Your task to perform on an android device: create a new album in the google photos Image 0: 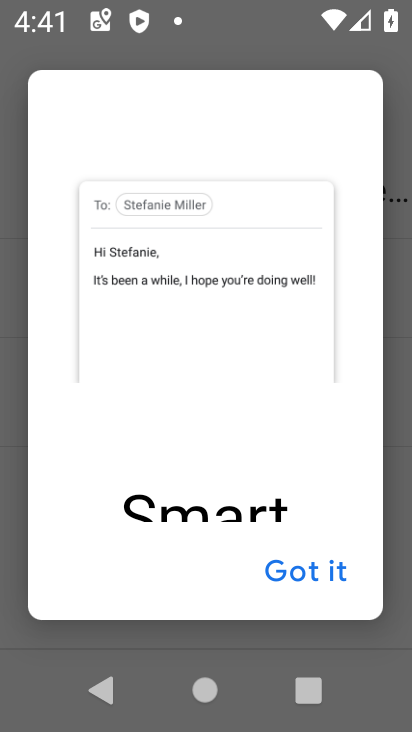
Step 0: press home button
Your task to perform on an android device: create a new album in the google photos Image 1: 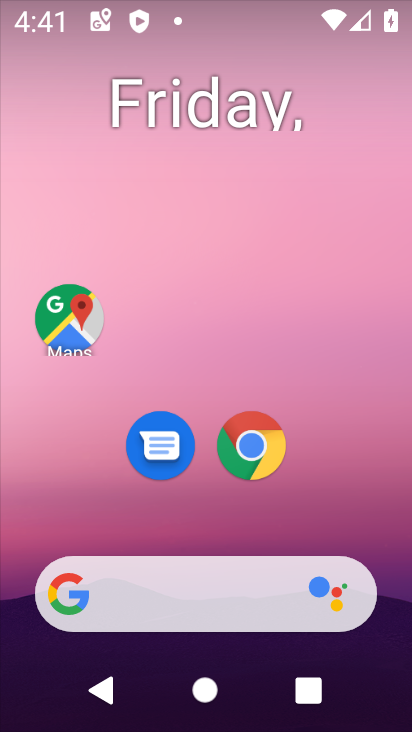
Step 1: drag from (303, 309) to (301, 120)
Your task to perform on an android device: create a new album in the google photos Image 2: 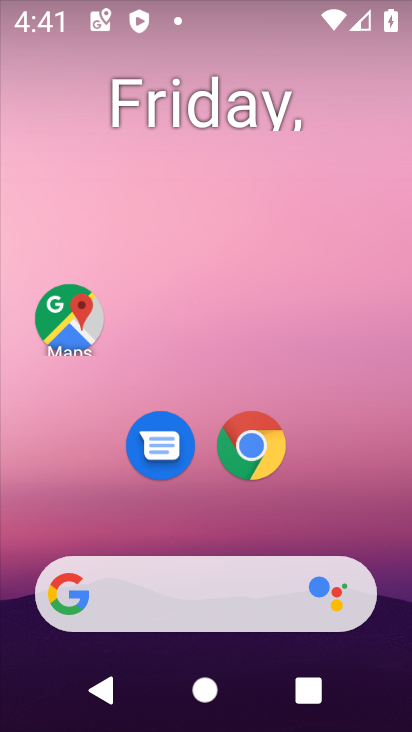
Step 2: drag from (365, 501) to (316, 106)
Your task to perform on an android device: create a new album in the google photos Image 3: 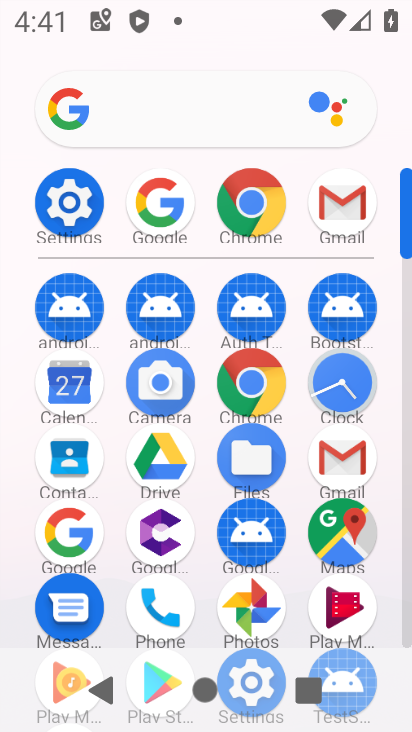
Step 3: click (249, 615)
Your task to perform on an android device: create a new album in the google photos Image 4: 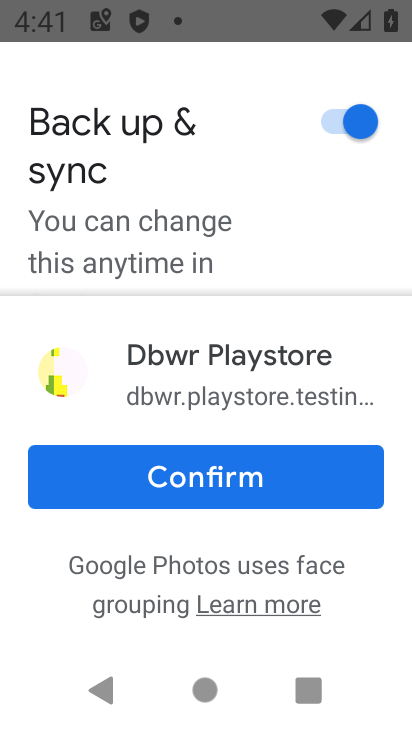
Step 4: click (229, 463)
Your task to perform on an android device: create a new album in the google photos Image 5: 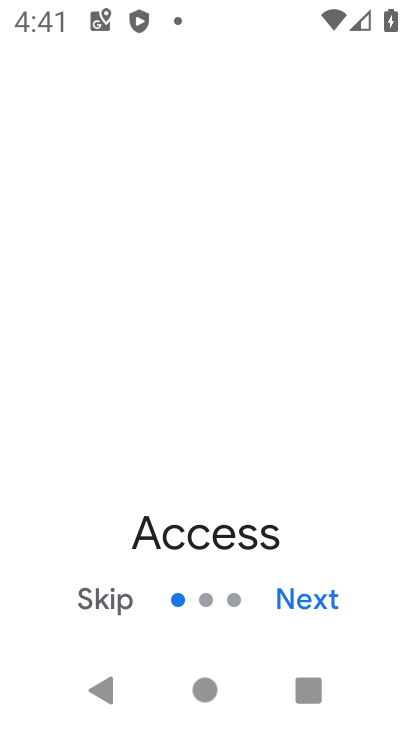
Step 5: click (102, 600)
Your task to perform on an android device: create a new album in the google photos Image 6: 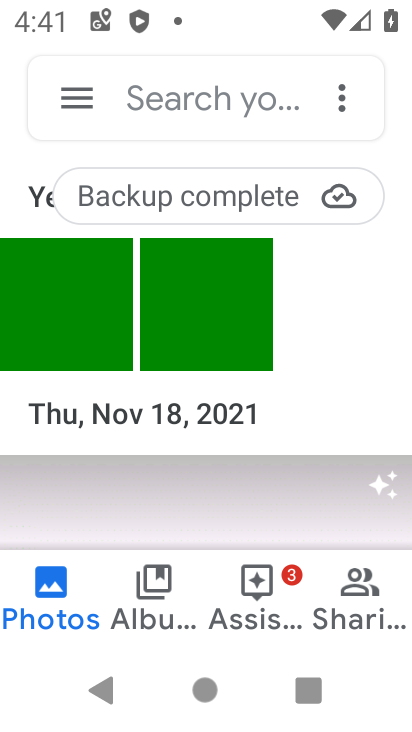
Step 6: click (59, 325)
Your task to perform on an android device: create a new album in the google photos Image 7: 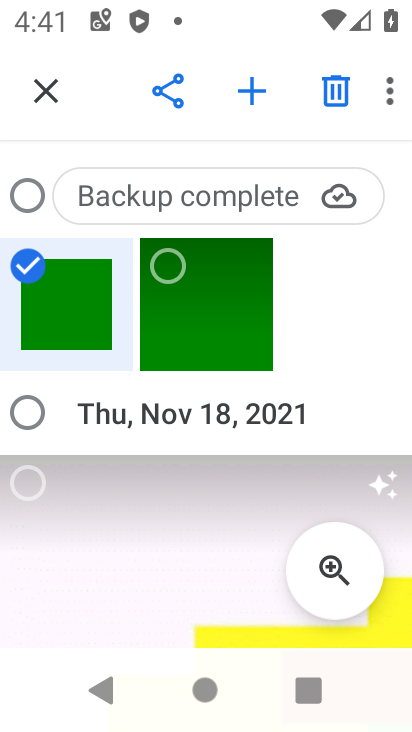
Step 7: click (163, 315)
Your task to perform on an android device: create a new album in the google photos Image 8: 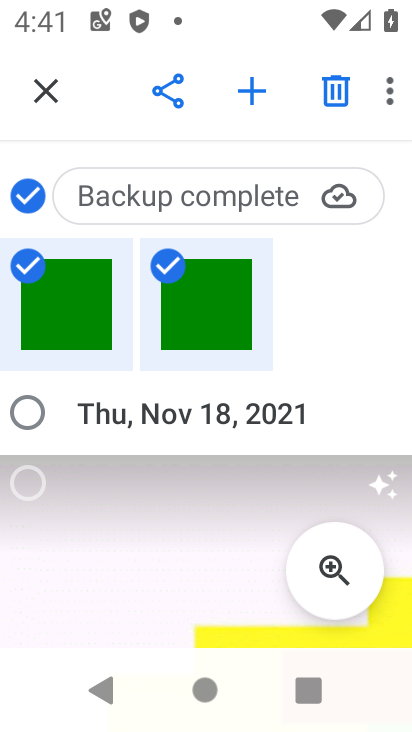
Step 8: click (248, 77)
Your task to perform on an android device: create a new album in the google photos Image 9: 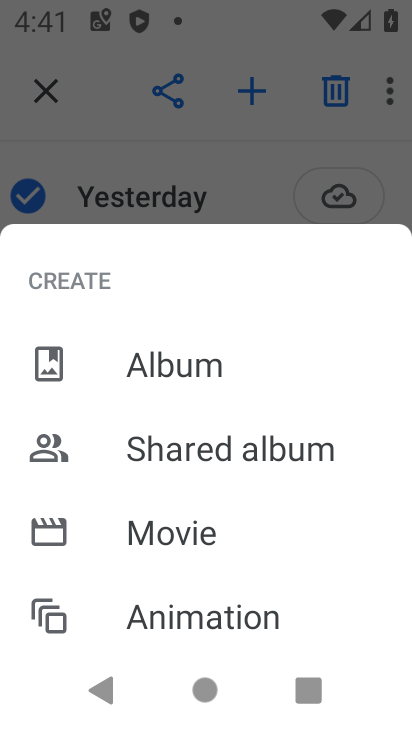
Step 9: click (158, 367)
Your task to perform on an android device: create a new album in the google photos Image 10: 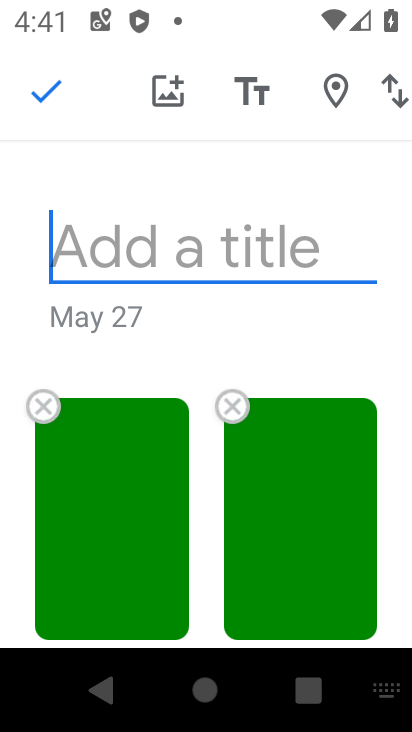
Step 10: type "jjmm"
Your task to perform on an android device: create a new album in the google photos Image 11: 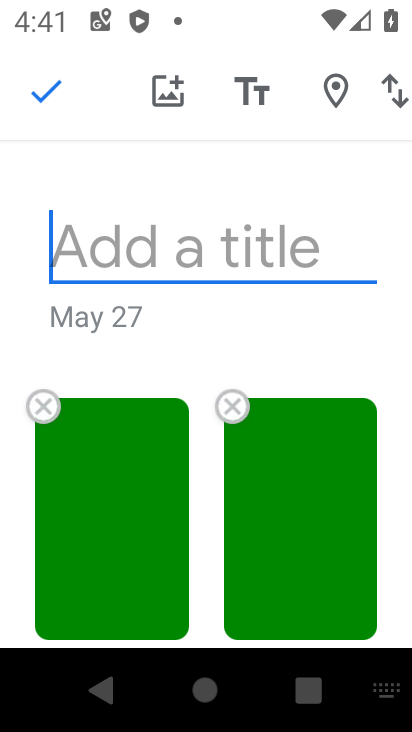
Step 11: click (224, 260)
Your task to perform on an android device: create a new album in the google photos Image 12: 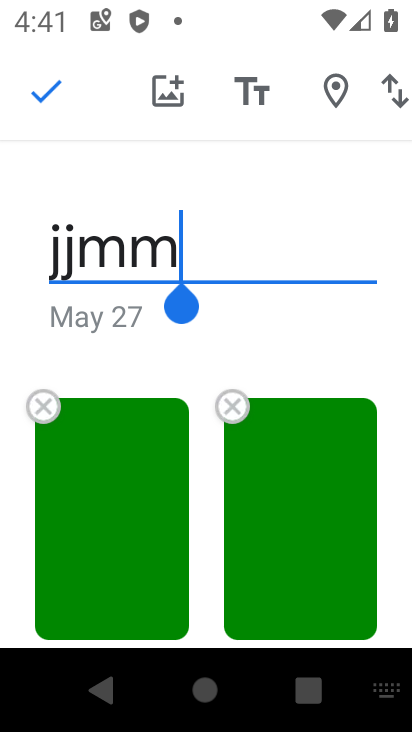
Step 12: click (47, 91)
Your task to perform on an android device: create a new album in the google photos Image 13: 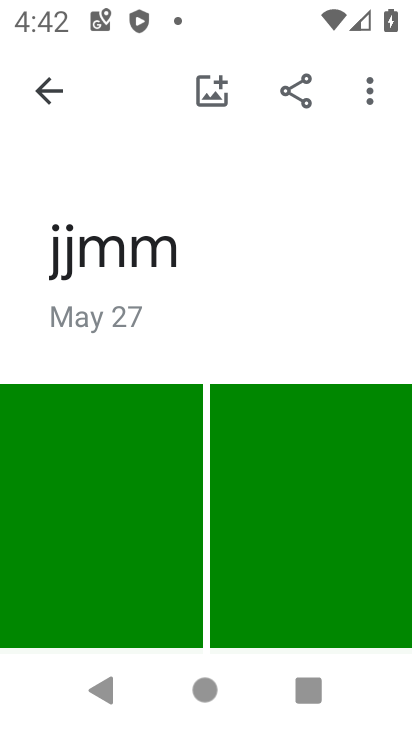
Step 13: task complete